Your task to perform on an android device: Open internet settings Image 0: 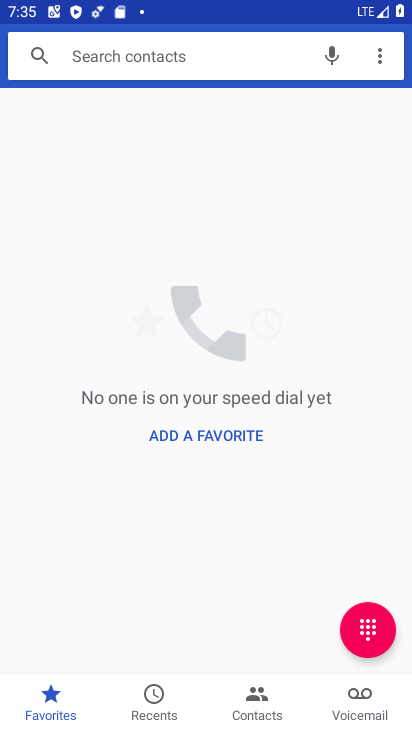
Step 0: press home button
Your task to perform on an android device: Open internet settings Image 1: 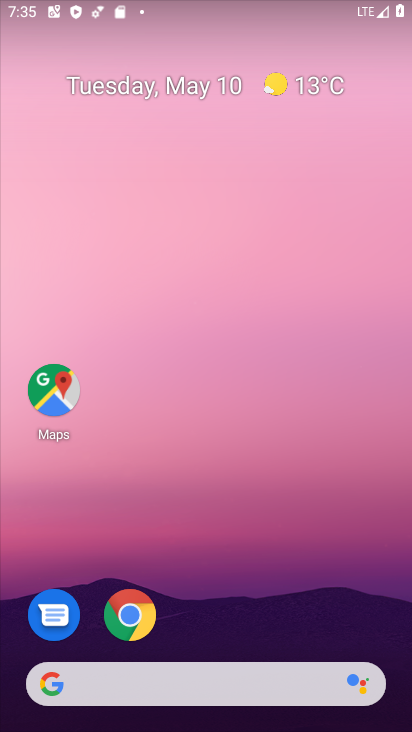
Step 1: drag from (374, 508) to (395, 54)
Your task to perform on an android device: Open internet settings Image 2: 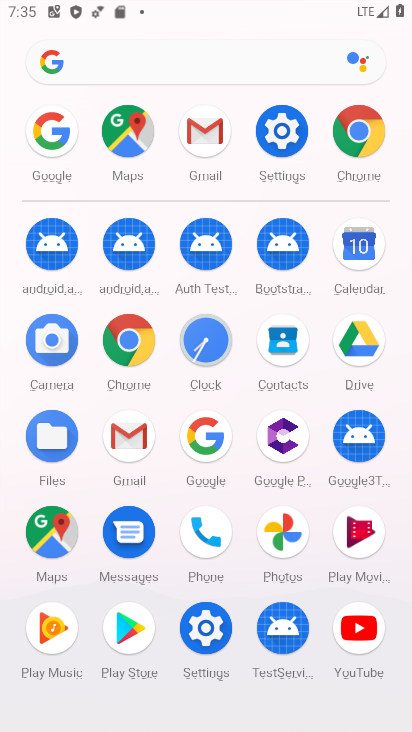
Step 2: click (278, 135)
Your task to perform on an android device: Open internet settings Image 3: 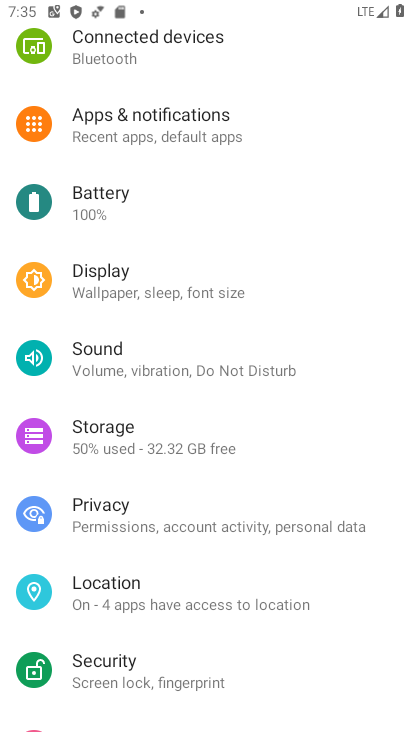
Step 3: drag from (159, 155) to (144, 439)
Your task to perform on an android device: Open internet settings Image 4: 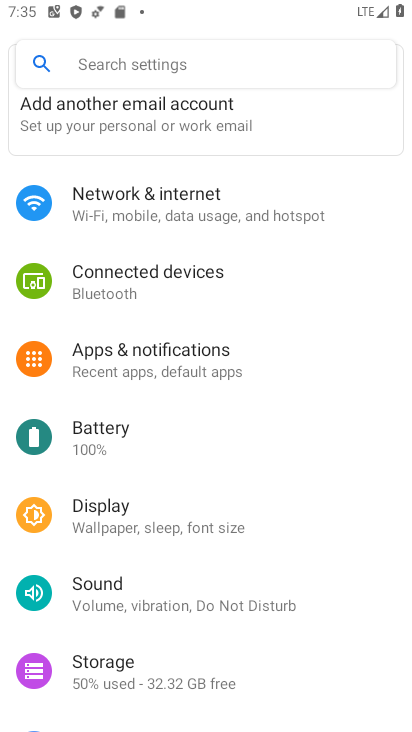
Step 4: click (183, 214)
Your task to perform on an android device: Open internet settings Image 5: 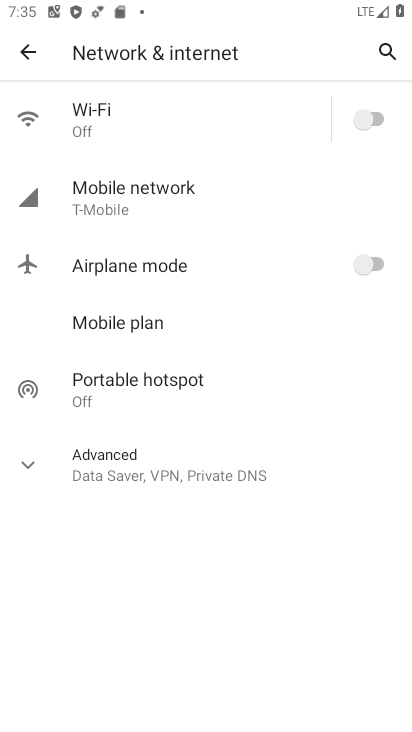
Step 5: click (139, 202)
Your task to perform on an android device: Open internet settings Image 6: 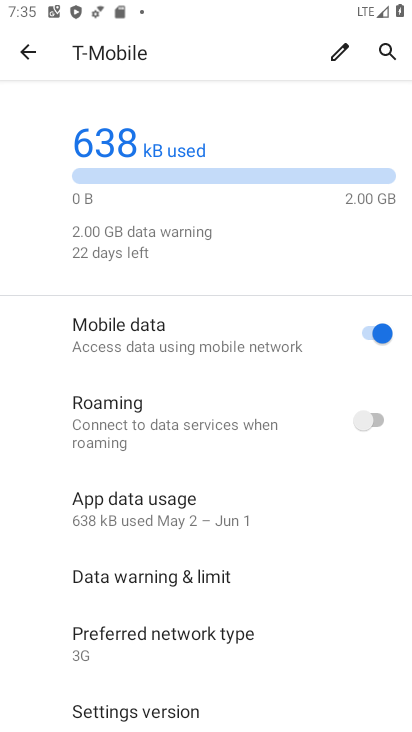
Step 6: task complete